Your task to perform on an android device: Open calendar and show me the third week of next month Image 0: 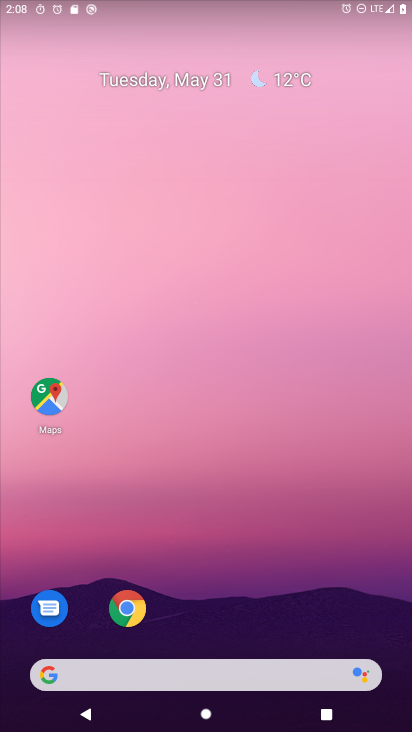
Step 0: drag from (286, 647) to (281, 5)
Your task to perform on an android device: Open calendar and show me the third week of next month Image 1: 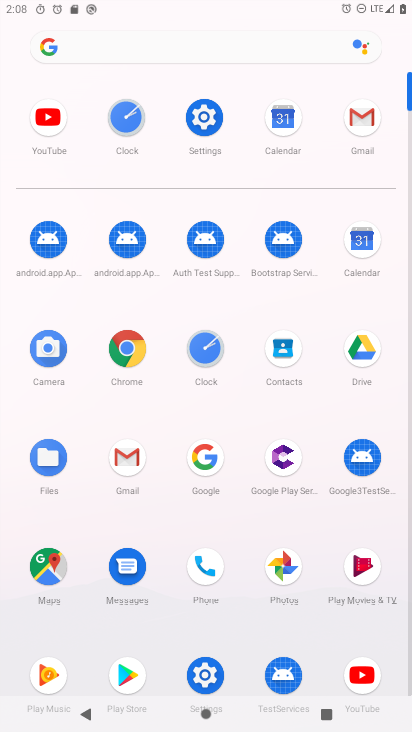
Step 1: click (277, 120)
Your task to perform on an android device: Open calendar and show me the third week of next month Image 2: 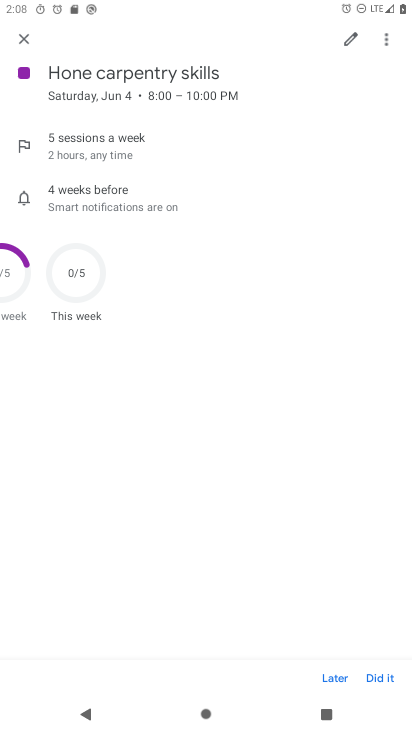
Step 2: click (19, 36)
Your task to perform on an android device: Open calendar and show me the third week of next month Image 3: 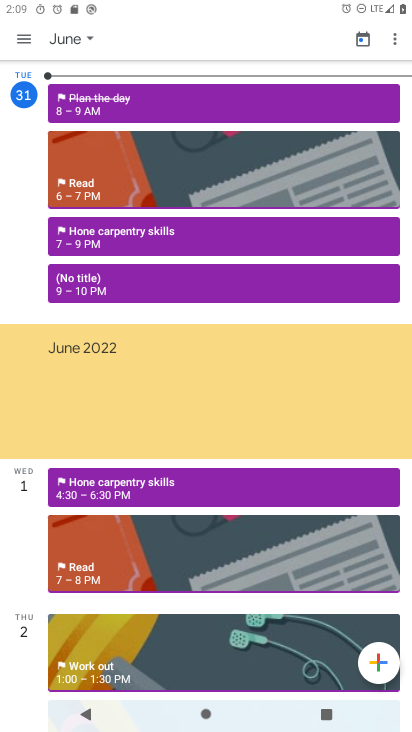
Step 3: click (19, 33)
Your task to perform on an android device: Open calendar and show me the third week of next month Image 4: 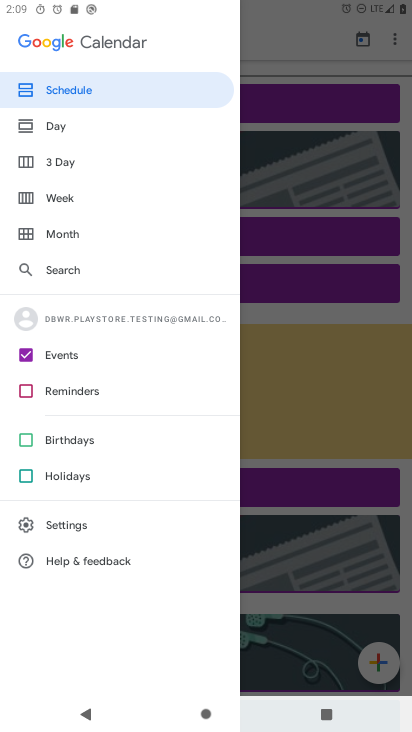
Step 4: click (47, 192)
Your task to perform on an android device: Open calendar and show me the third week of next month Image 5: 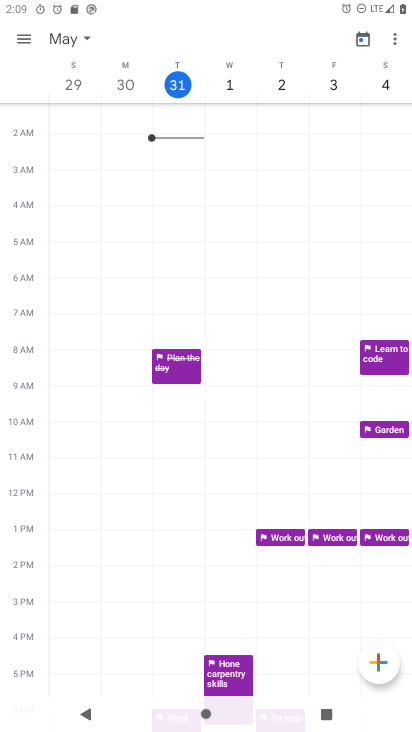
Step 5: task complete